Your task to perform on an android device: Open Google Chrome and click the shortcut for Amazon.com Image 0: 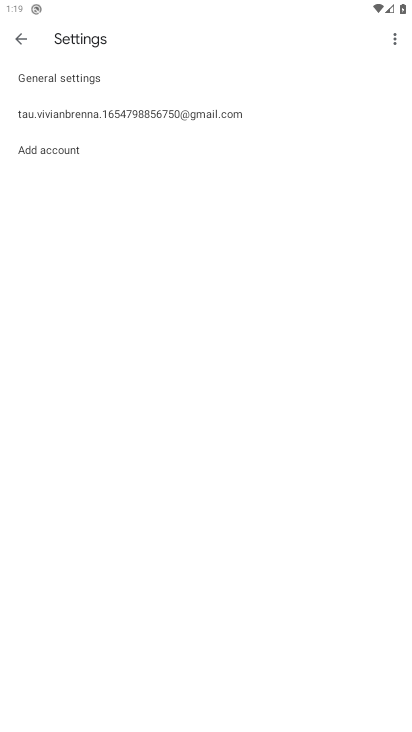
Step 0: press home button
Your task to perform on an android device: Open Google Chrome and click the shortcut for Amazon.com Image 1: 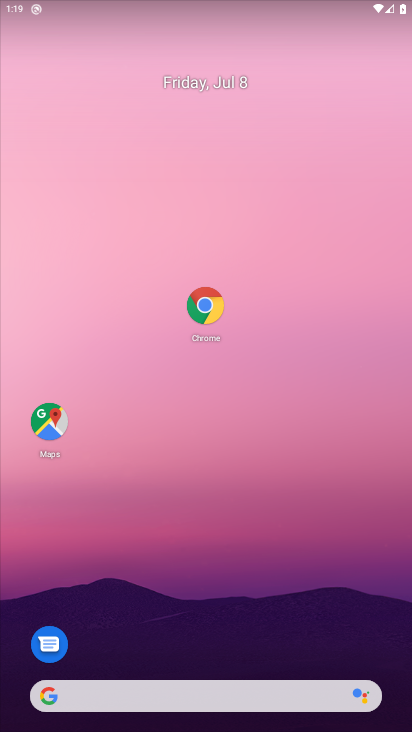
Step 1: click (207, 295)
Your task to perform on an android device: Open Google Chrome and click the shortcut for Amazon.com Image 2: 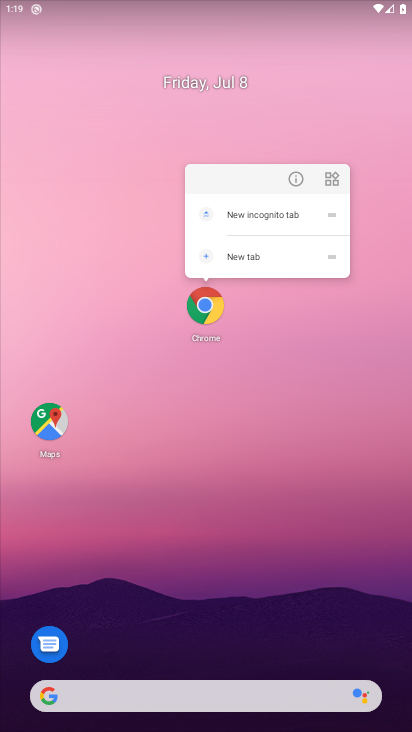
Step 2: click (209, 303)
Your task to perform on an android device: Open Google Chrome and click the shortcut for Amazon.com Image 3: 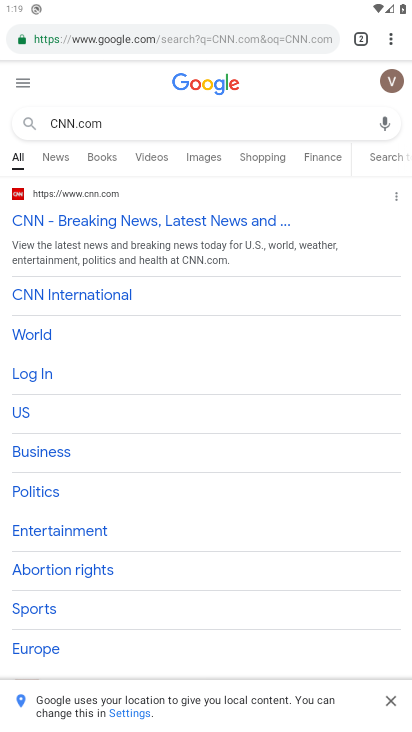
Step 3: click (361, 39)
Your task to perform on an android device: Open Google Chrome and click the shortcut for Amazon.com Image 4: 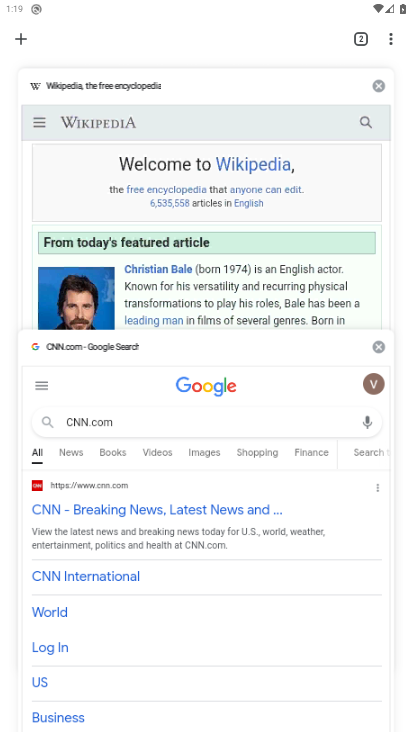
Step 4: click (382, 85)
Your task to perform on an android device: Open Google Chrome and click the shortcut for Amazon.com Image 5: 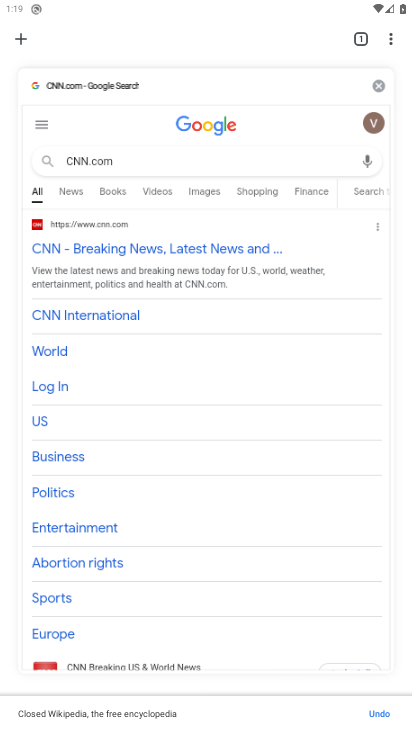
Step 5: click (382, 85)
Your task to perform on an android device: Open Google Chrome and click the shortcut for Amazon.com Image 6: 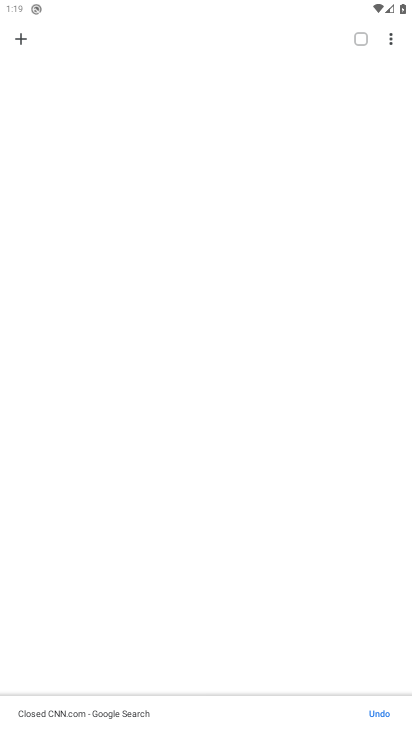
Step 6: click (25, 36)
Your task to perform on an android device: Open Google Chrome and click the shortcut for Amazon.com Image 7: 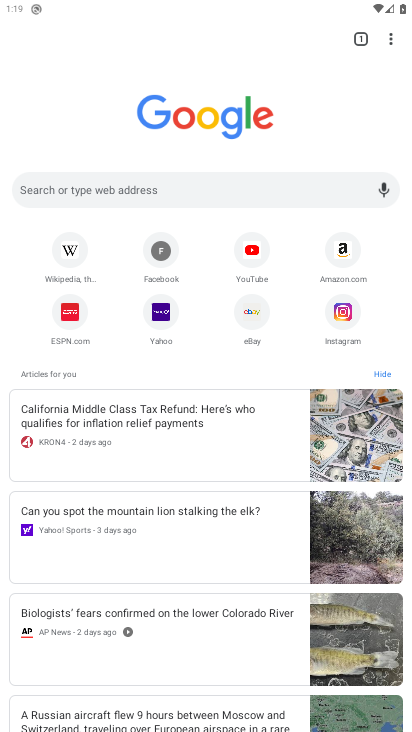
Step 7: click (347, 245)
Your task to perform on an android device: Open Google Chrome and click the shortcut for Amazon.com Image 8: 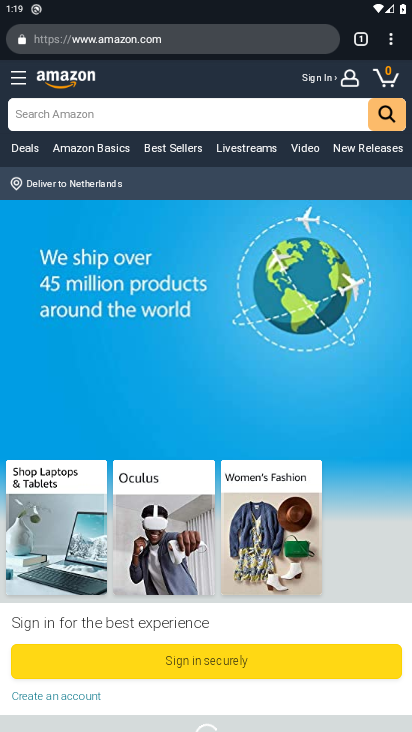
Step 8: task complete